Your task to perform on an android device: Turn on the flashlight Image 0: 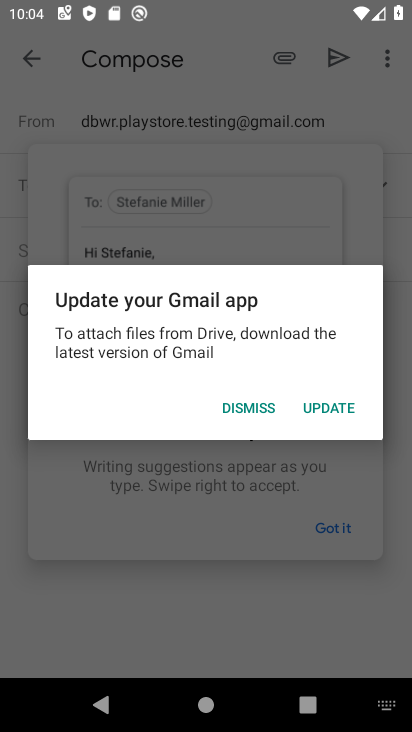
Step 0: click (238, 407)
Your task to perform on an android device: Turn on the flashlight Image 1: 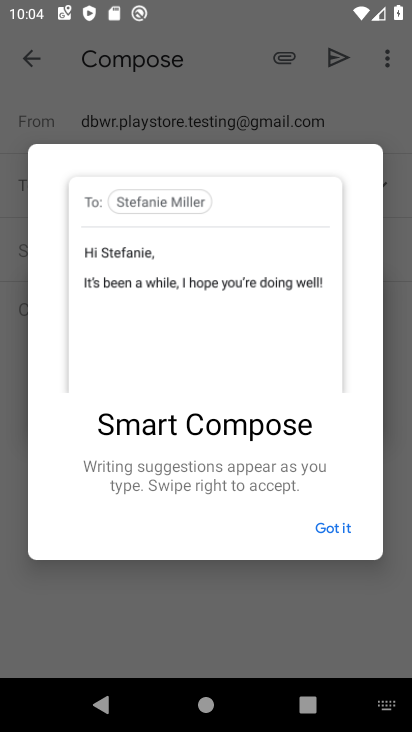
Step 1: click (328, 519)
Your task to perform on an android device: Turn on the flashlight Image 2: 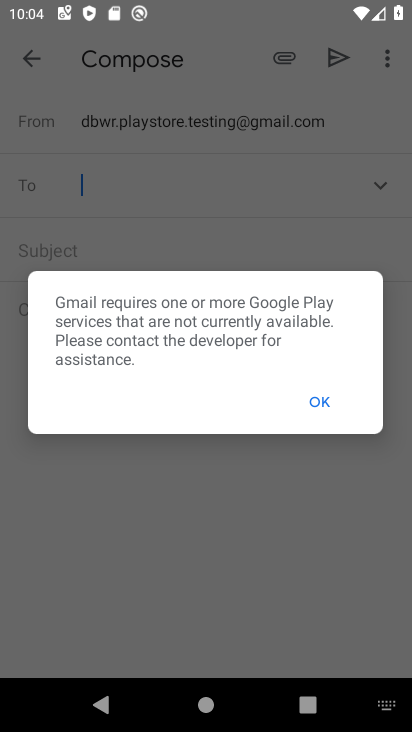
Step 2: click (319, 401)
Your task to perform on an android device: Turn on the flashlight Image 3: 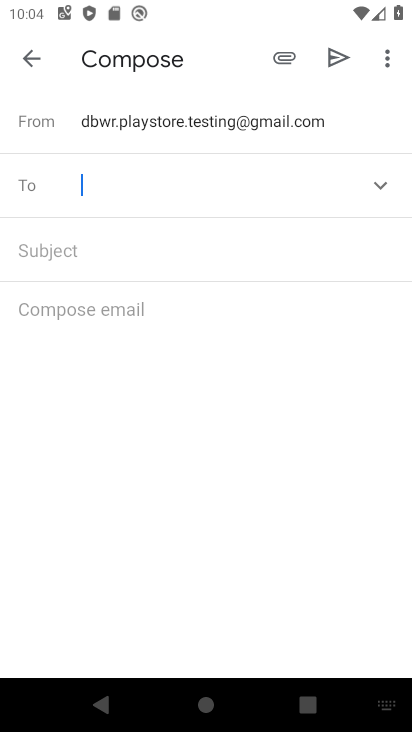
Step 3: click (25, 62)
Your task to perform on an android device: Turn on the flashlight Image 4: 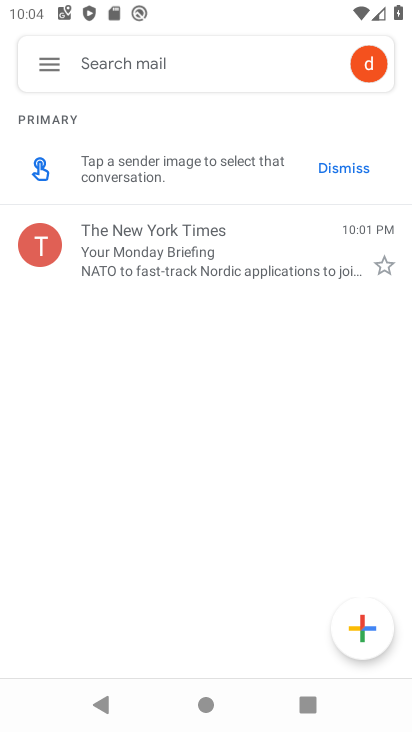
Step 4: task complete